Your task to perform on an android device: Go to calendar. Show me events next week Image 0: 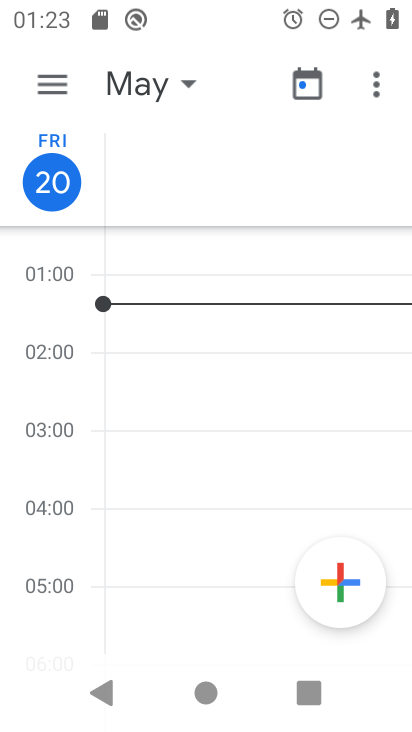
Step 0: press home button
Your task to perform on an android device: Go to calendar. Show me events next week Image 1: 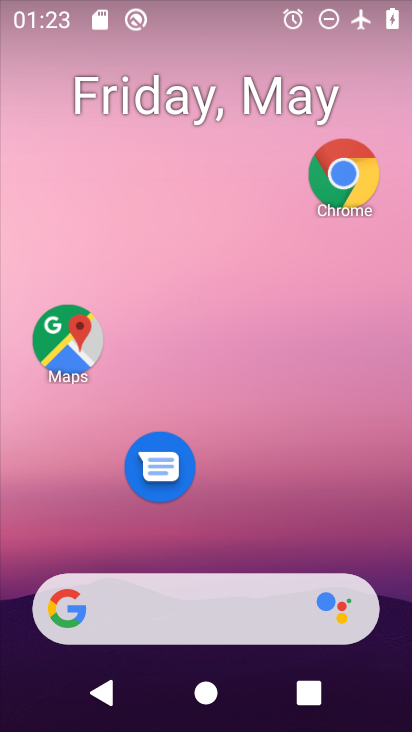
Step 1: drag from (265, 506) to (287, 269)
Your task to perform on an android device: Go to calendar. Show me events next week Image 2: 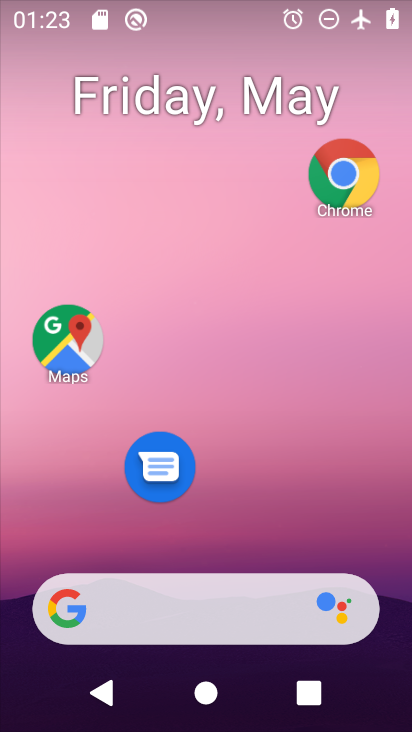
Step 2: drag from (273, 513) to (263, 267)
Your task to perform on an android device: Go to calendar. Show me events next week Image 3: 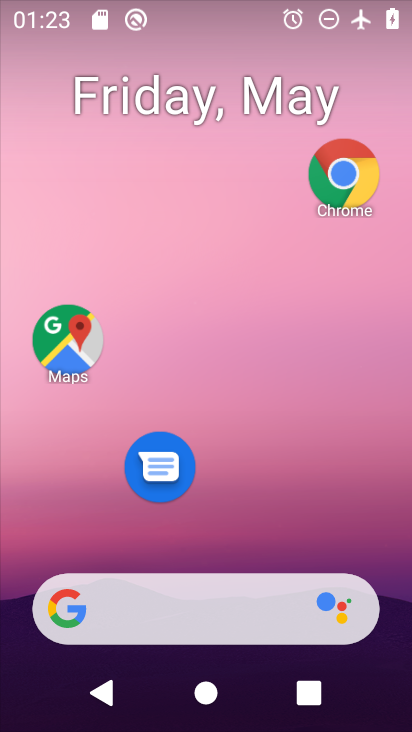
Step 3: drag from (270, 534) to (259, 262)
Your task to perform on an android device: Go to calendar. Show me events next week Image 4: 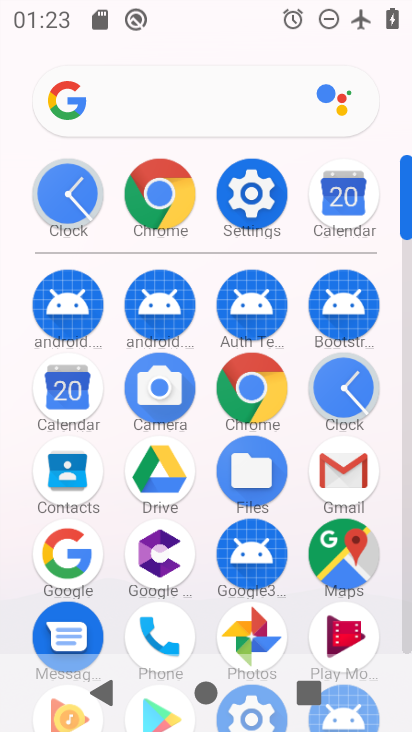
Step 4: click (57, 378)
Your task to perform on an android device: Go to calendar. Show me events next week Image 5: 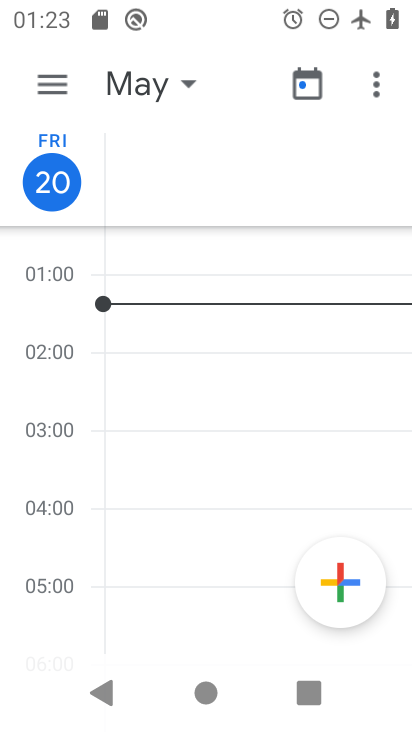
Step 5: click (40, 78)
Your task to perform on an android device: Go to calendar. Show me events next week Image 6: 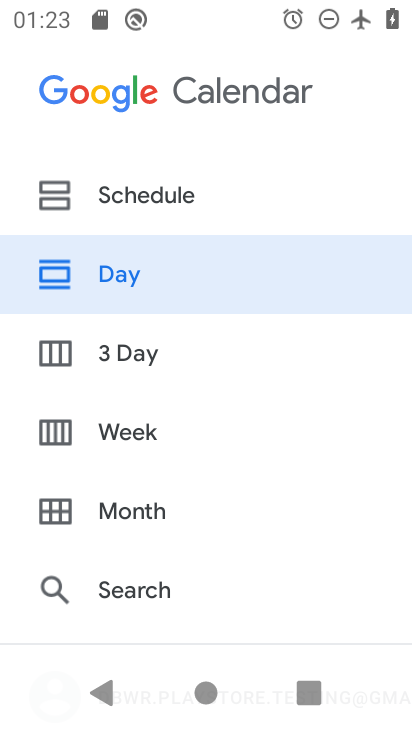
Step 6: click (157, 501)
Your task to perform on an android device: Go to calendar. Show me events next week Image 7: 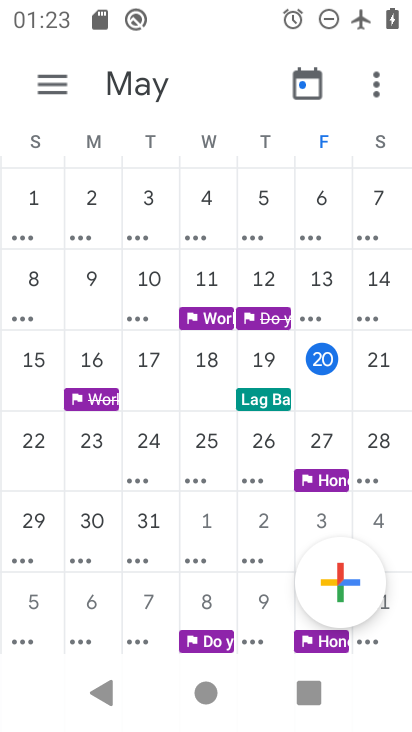
Step 7: task complete